Your task to perform on an android device: Open battery settings Image 0: 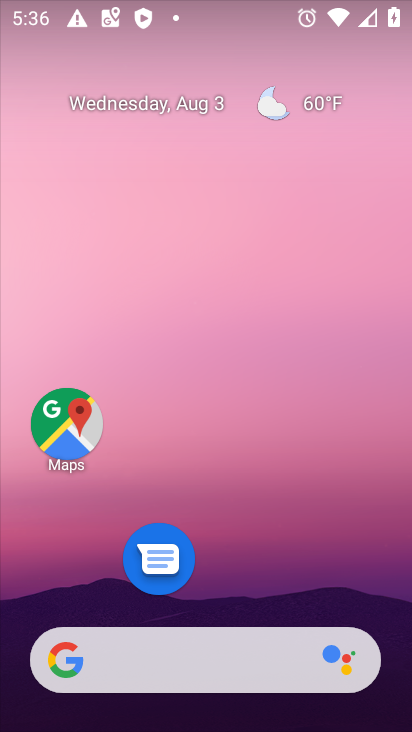
Step 0: drag from (217, 610) to (226, 99)
Your task to perform on an android device: Open battery settings Image 1: 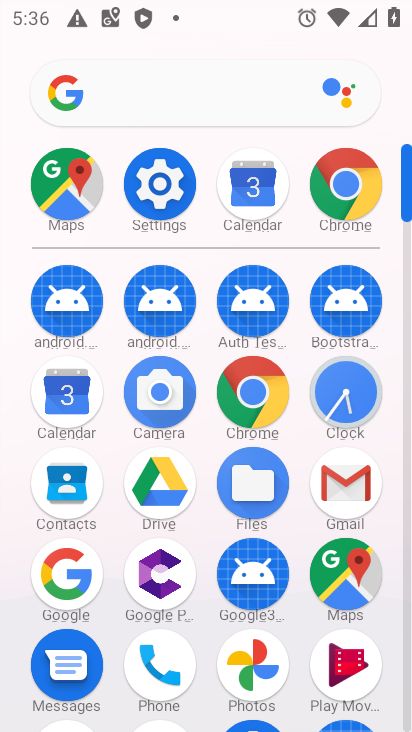
Step 1: click (52, 583)
Your task to perform on an android device: Open battery settings Image 2: 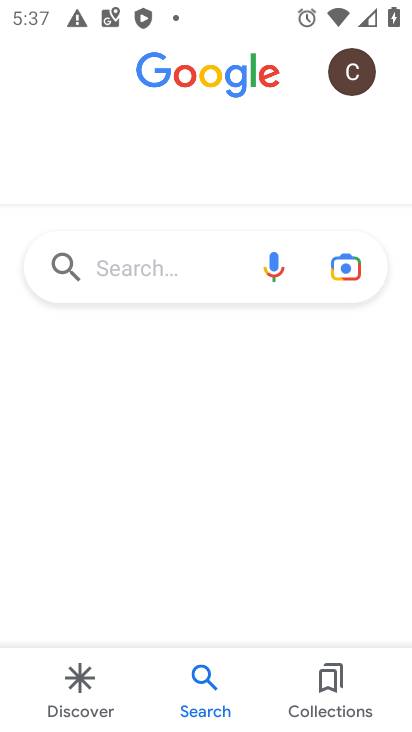
Step 2: click (147, 268)
Your task to perform on an android device: Open battery settings Image 3: 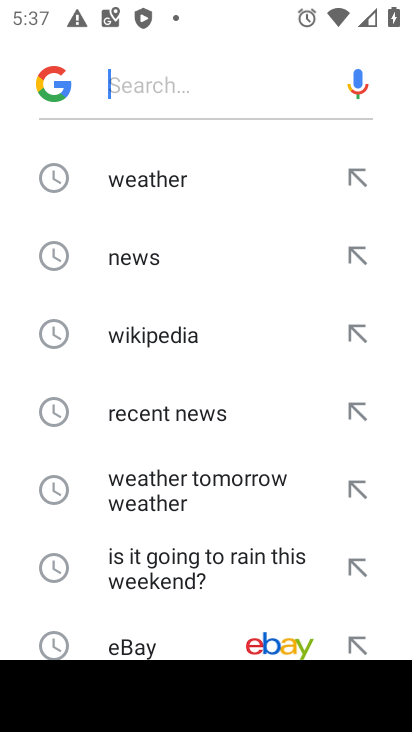
Step 3: press home button
Your task to perform on an android device: Open battery settings Image 4: 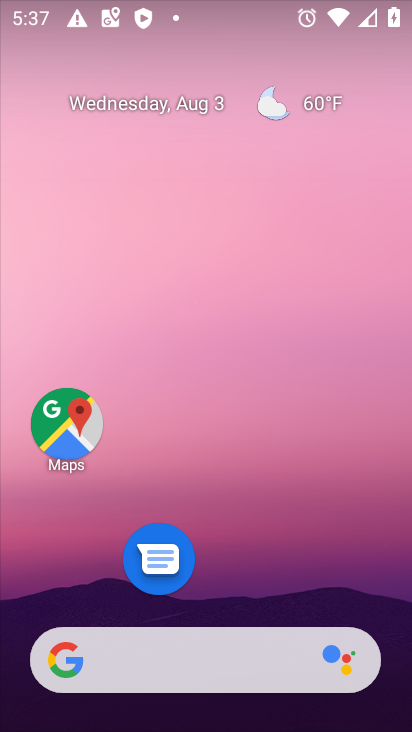
Step 4: drag from (202, 644) to (203, 231)
Your task to perform on an android device: Open battery settings Image 5: 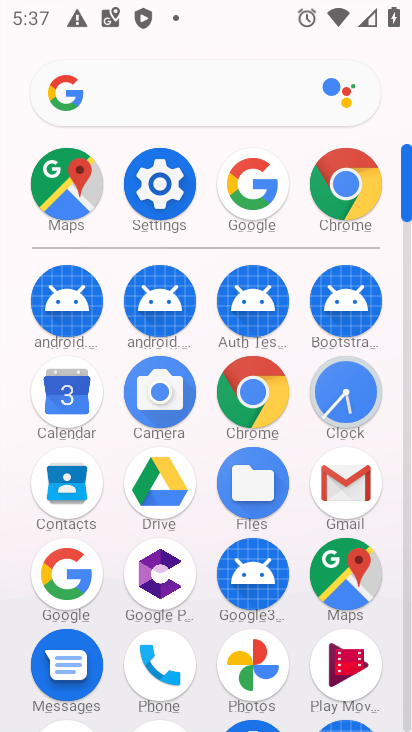
Step 5: click (138, 188)
Your task to perform on an android device: Open battery settings Image 6: 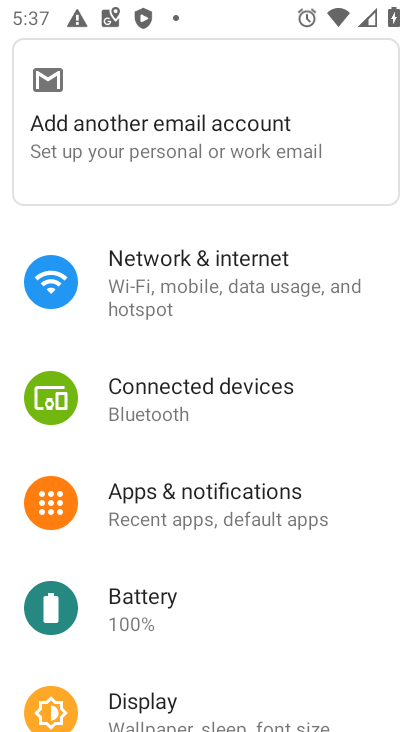
Step 6: click (140, 607)
Your task to perform on an android device: Open battery settings Image 7: 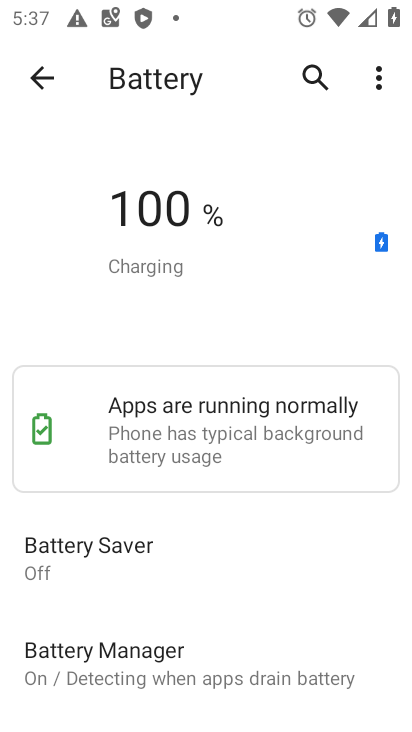
Step 7: task complete